Your task to perform on an android device: move an email to a new category in the gmail app Image 0: 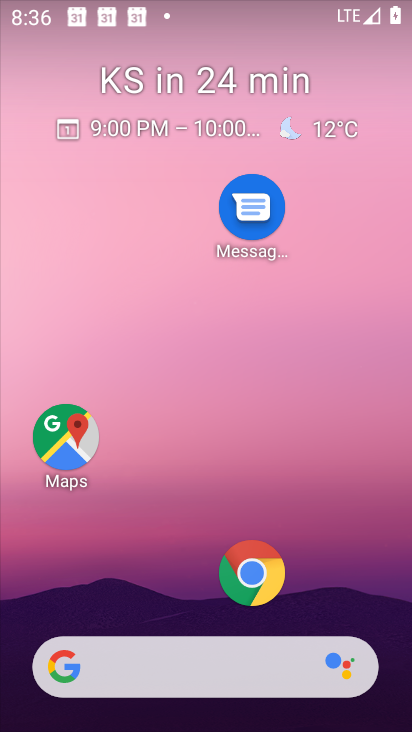
Step 0: drag from (181, 582) to (224, 87)
Your task to perform on an android device: move an email to a new category in the gmail app Image 1: 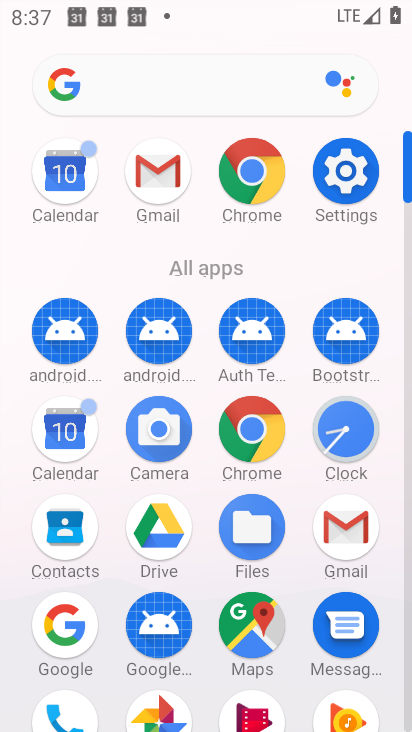
Step 1: click (158, 177)
Your task to perform on an android device: move an email to a new category in the gmail app Image 2: 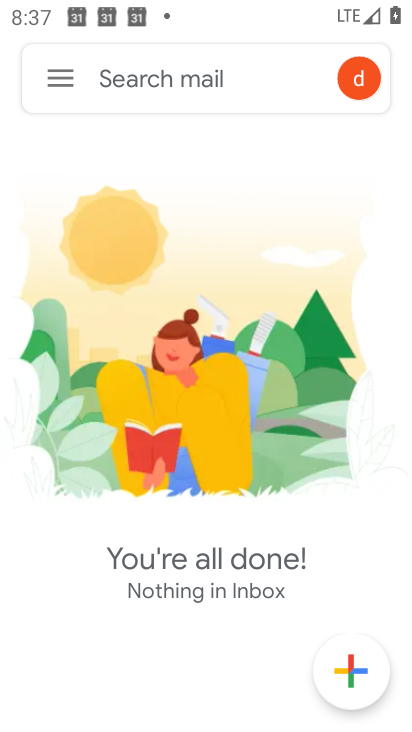
Step 2: click (59, 85)
Your task to perform on an android device: move an email to a new category in the gmail app Image 3: 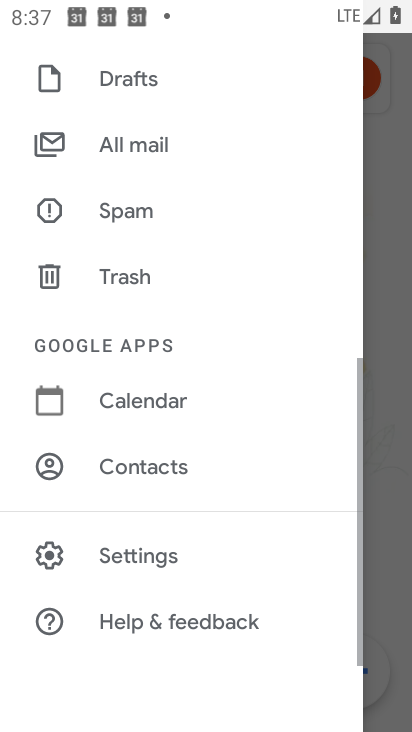
Step 3: click (109, 158)
Your task to perform on an android device: move an email to a new category in the gmail app Image 4: 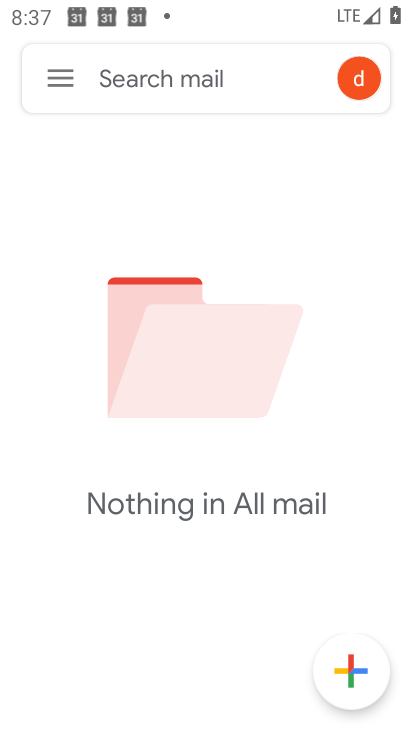
Step 4: task complete